Your task to perform on an android device: Clear the shopping cart on costco.com. Add "usb-a to usb-b" to the cart on costco.com, then select checkout. Image 0: 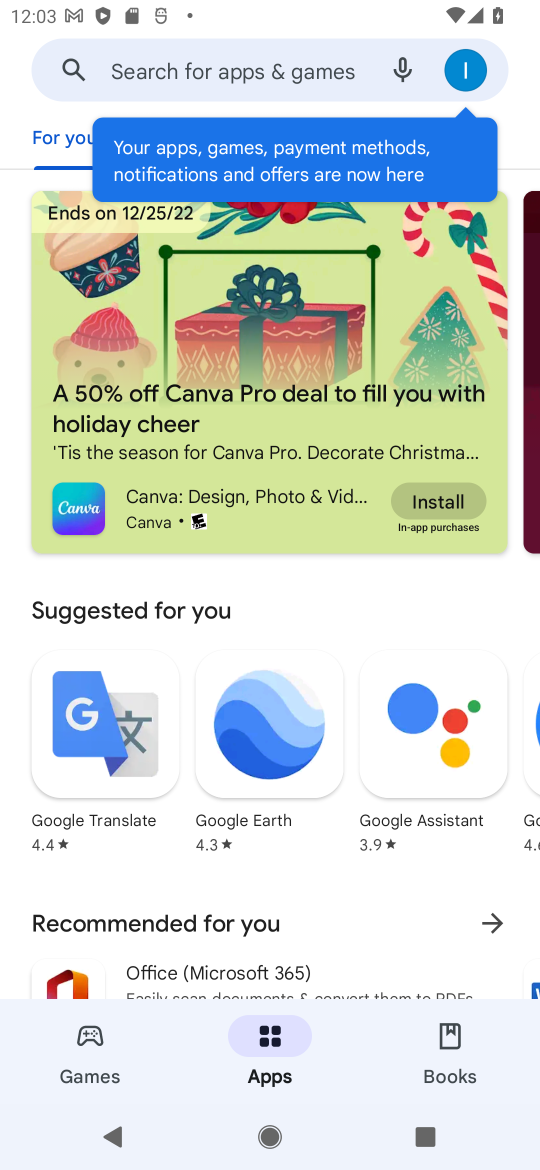
Step 0: press home button
Your task to perform on an android device: Clear the shopping cart on costco.com. Add "usb-a to usb-b" to the cart on costco.com, then select checkout. Image 1: 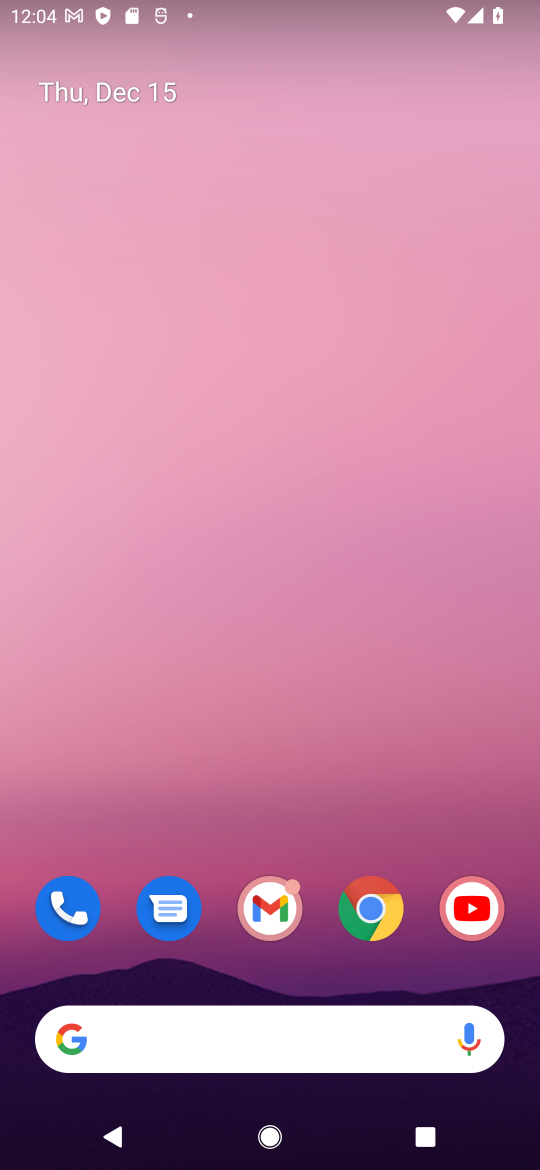
Step 1: click (374, 922)
Your task to perform on an android device: Clear the shopping cart on costco.com. Add "usb-a to usb-b" to the cart on costco.com, then select checkout. Image 2: 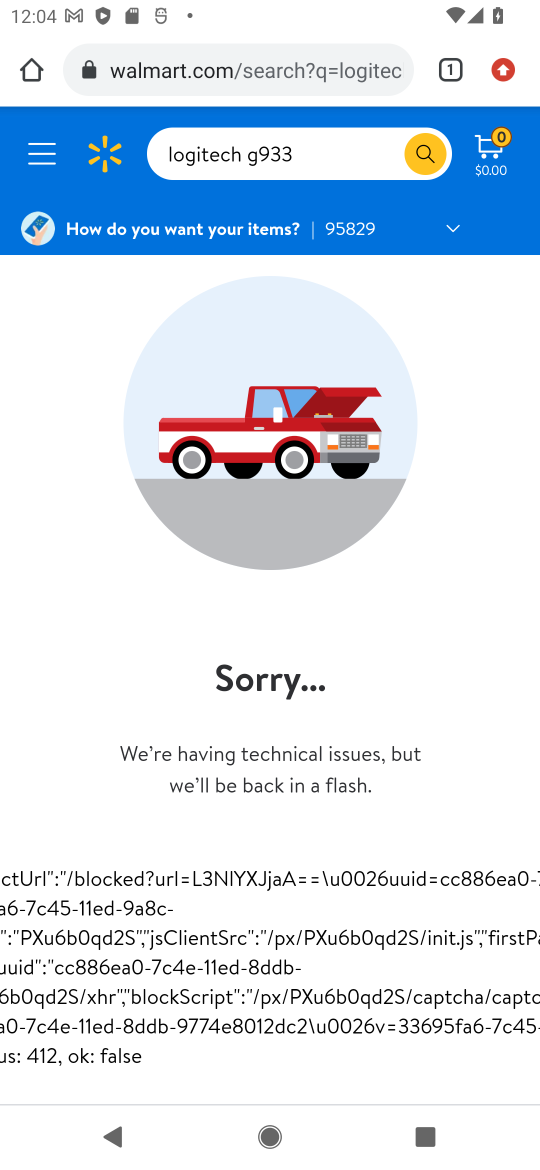
Step 2: click (251, 67)
Your task to perform on an android device: Clear the shopping cart on costco.com. Add "usb-a to usb-b" to the cart on costco.com, then select checkout. Image 3: 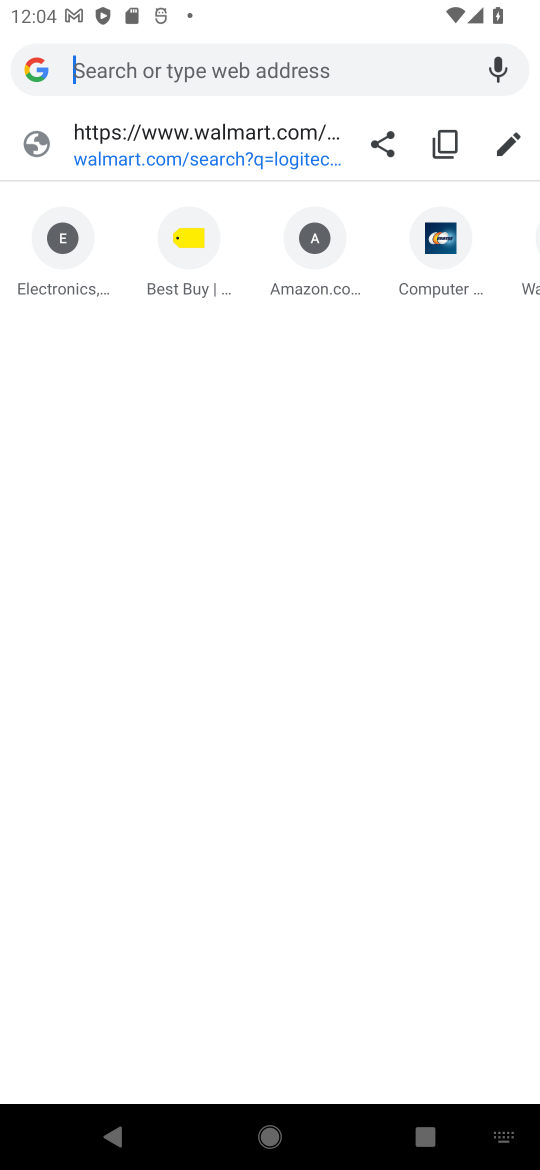
Step 3: type "costco.com"
Your task to perform on an android device: Clear the shopping cart on costco.com. Add "usb-a to usb-b" to the cart on costco.com, then select checkout. Image 4: 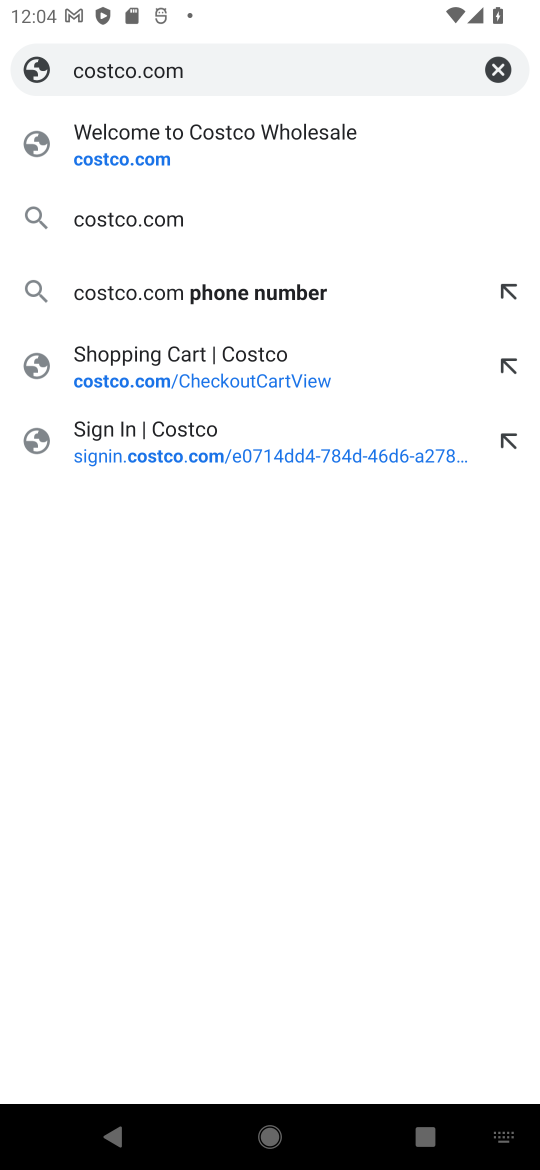
Step 4: click (101, 173)
Your task to perform on an android device: Clear the shopping cart on costco.com. Add "usb-a to usb-b" to the cart on costco.com, then select checkout. Image 5: 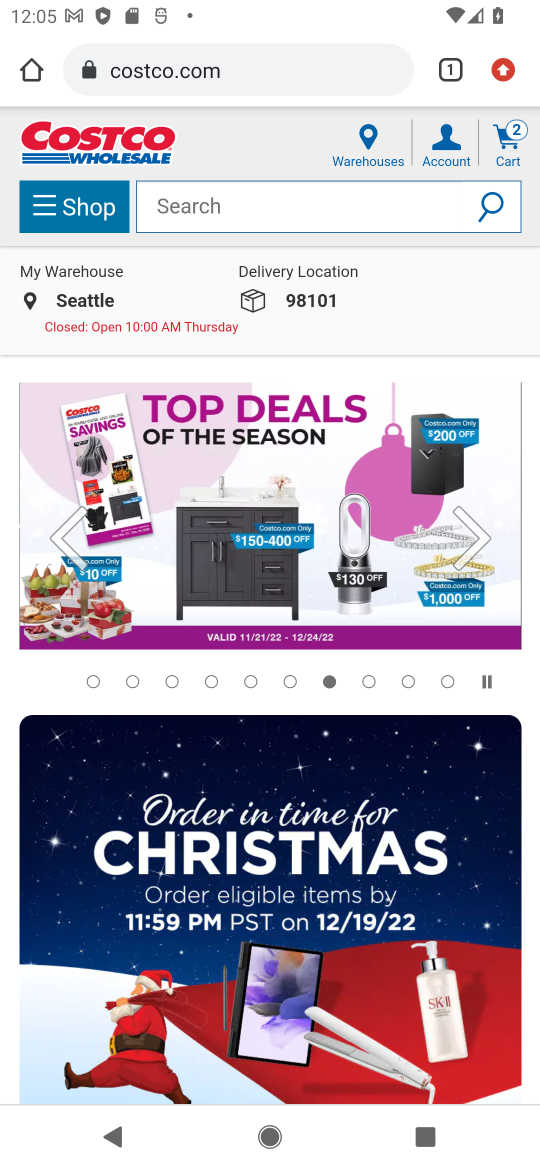
Step 5: click (500, 138)
Your task to perform on an android device: Clear the shopping cart on costco.com. Add "usb-a to usb-b" to the cart on costco.com, then select checkout. Image 6: 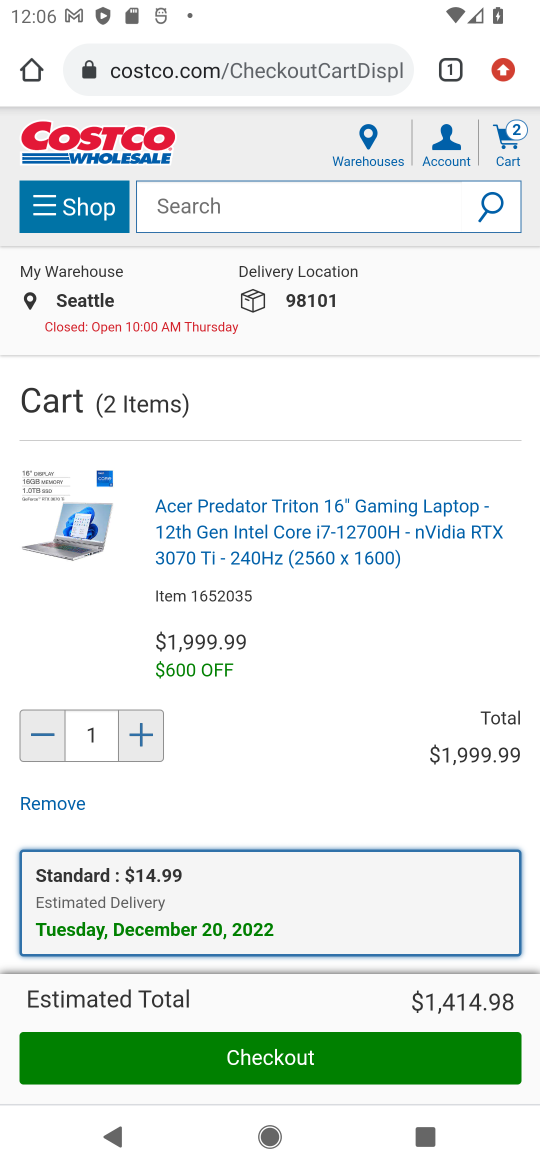
Step 6: drag from (291, 837) to (325, 282)
Your task to perform on an android device: Clear the shopping cart on costco.com. Add "usb-a to usb-b" to the cart on costco.com, then select checkout. Image 7: 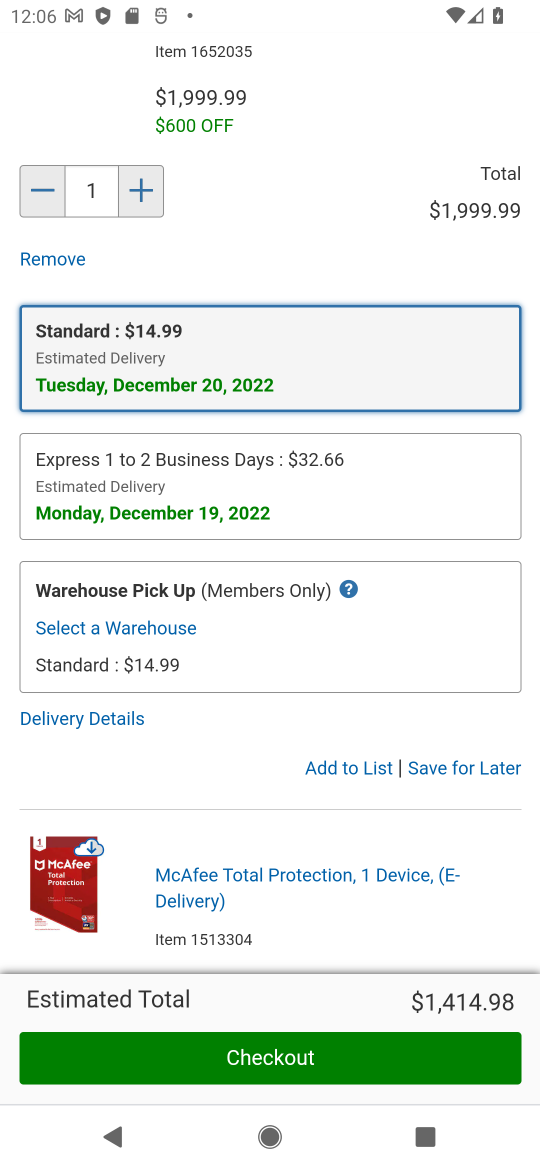
Step 7: click (474, 769)
Your task to perform on an android device: Clear the shopping cart on costco.com. Add "usb-a to usb-b" to the cart on costco.com, then select checkout. Image 8: 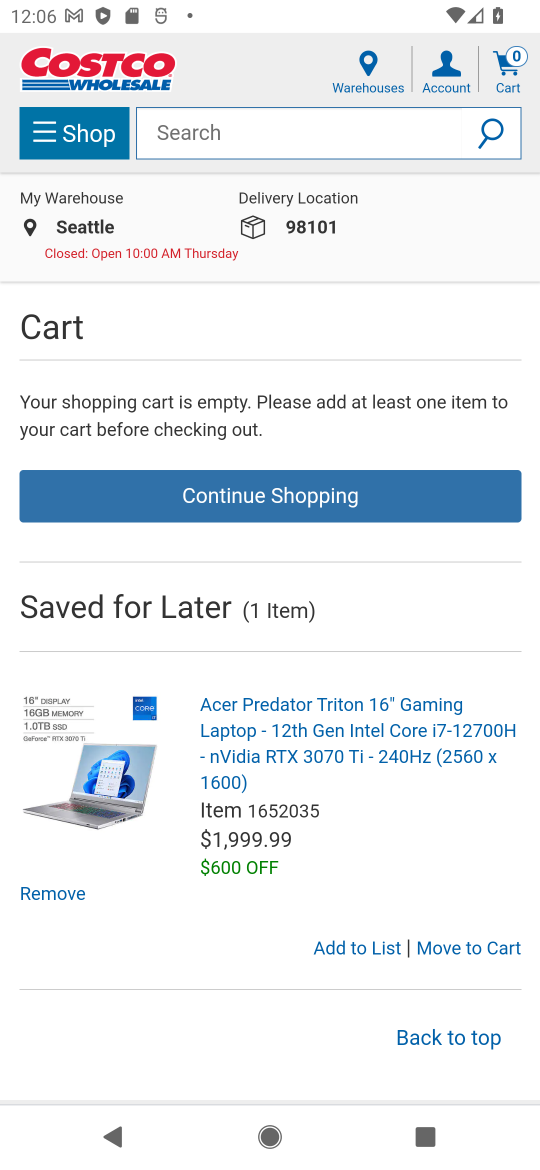
Step 8: drag from (174, 286) to (200, 451)
Your task to perform on an android device: Clear the shopping cart on costco.com. Add "usb-a to usb-b" to the cart on costco.com, then select checkout. Image 9: 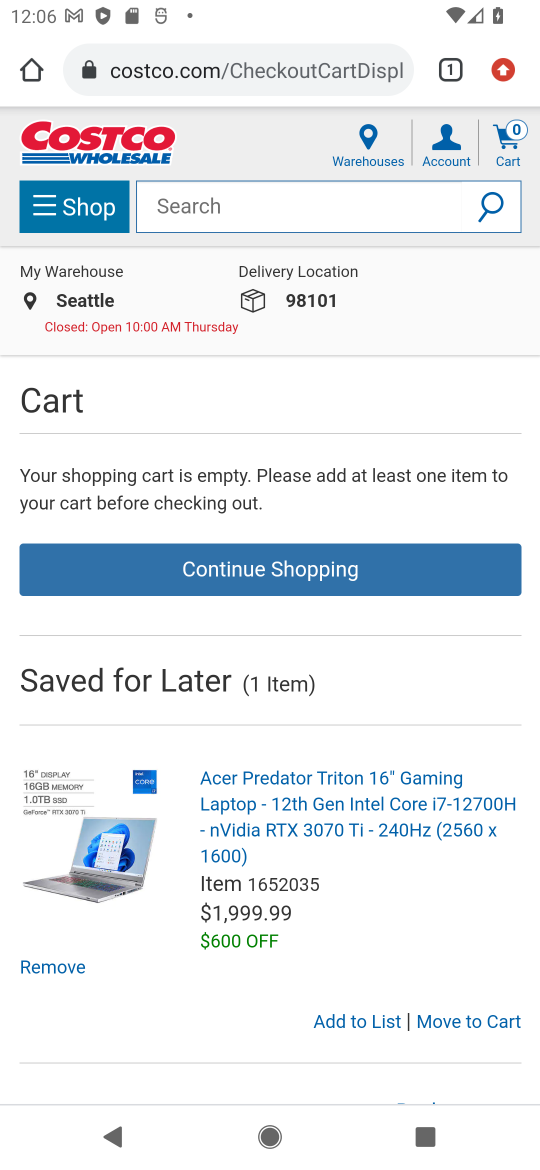
Step 9: click (195, 203)
Your task to perform on an android device: Clear the shopping cart on costco.com. Add "usb-a to usb-b" to the cart on costco.com, then select checkout. Image 10: 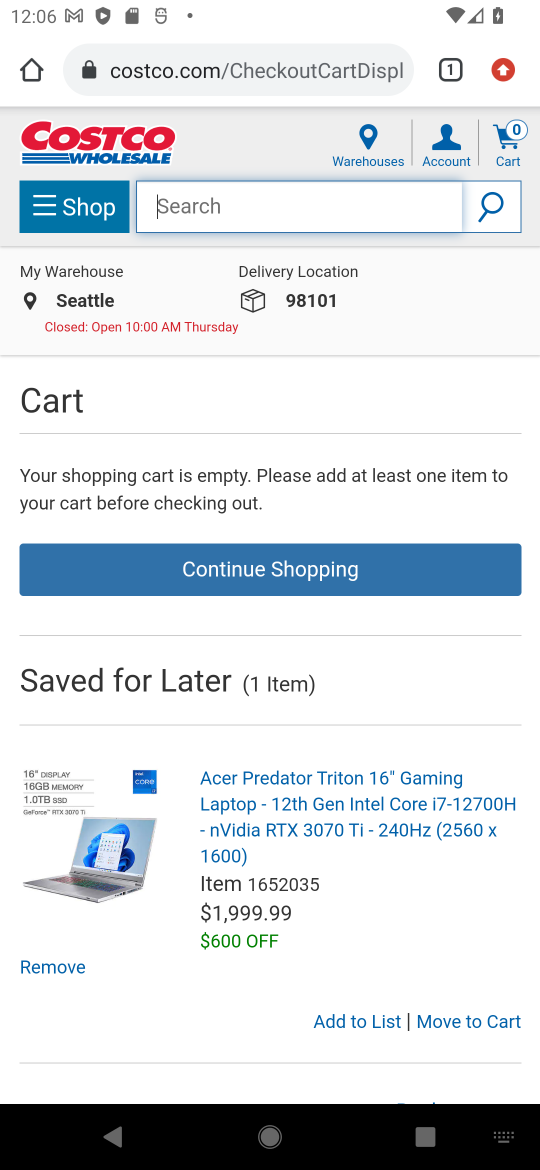
Step 10: type "usb-a to usb-b"
Your task to perform on an android device: Clear the shopping cart on costco.com. Add "usb-a to usb-b" to the cart on costco.com, then select checkout. Image 11: 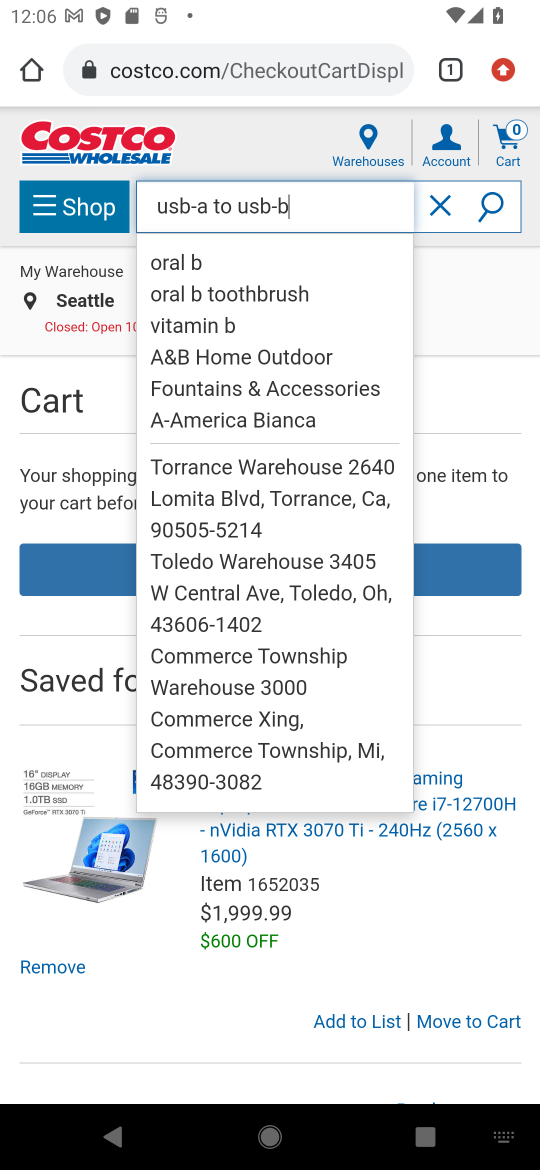
Step 11: click (486, 219)
Your task to perform on an android device: Clear the shopping cart on costco.com. Add "usb-a to usb-b" to the cart on costco.com, then select checkout. Image 12: 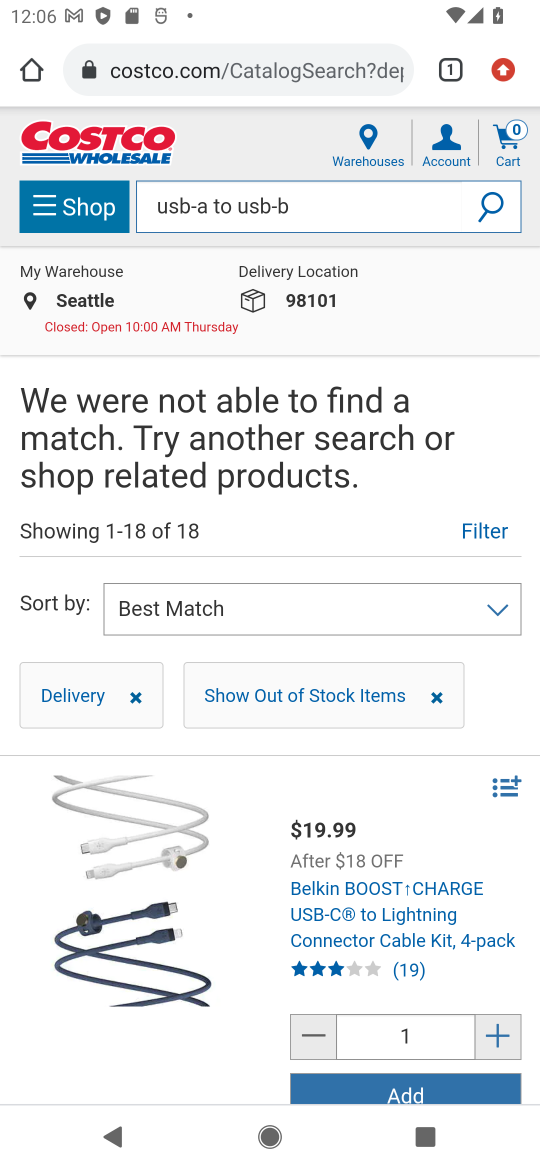
Step 12: task complete